Your task to perform on an android device: Search for pizza restaurants on Maps Image 0: 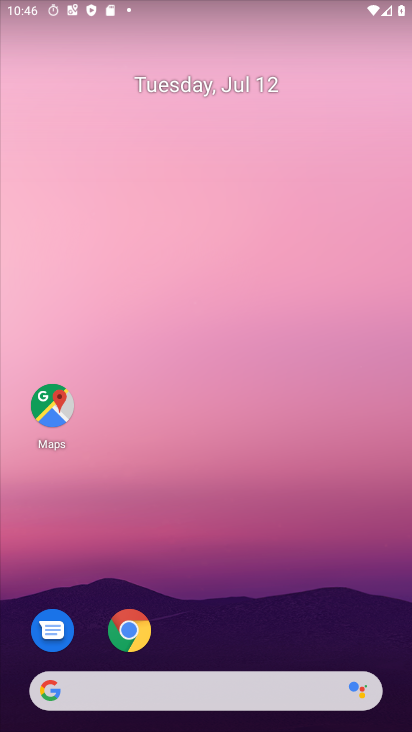
Step 0: click (51, 409)
Your task to perform on an android device: Search for pizza restaurants on Maps Image 1: 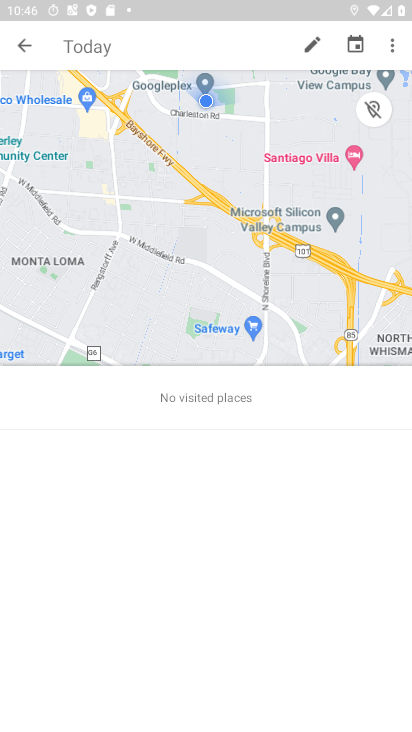
Step 1: press back button
Your task to perform on an android device: Search for pizza restaurants on Maps Image 2: 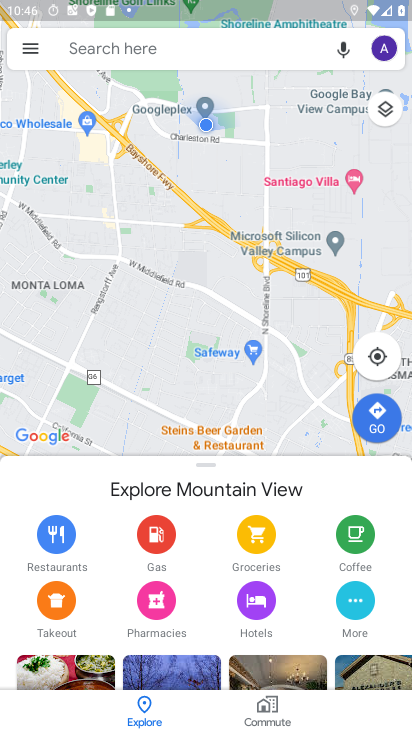
Step 2: click (204, 46)
Your task to perform on an android device: Search for pizza restaurants on Maps Image 3: 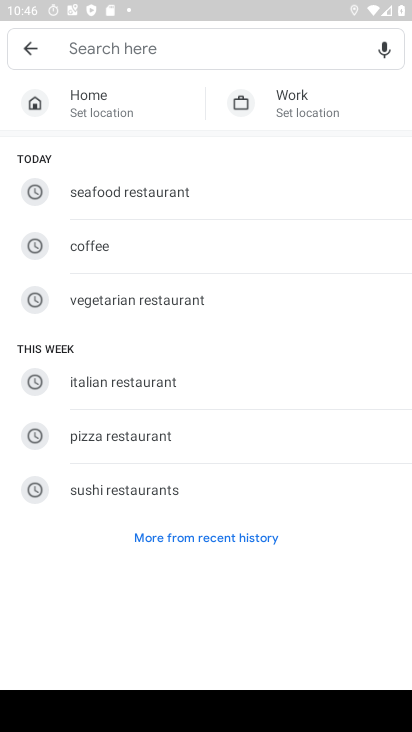
Step 3: click (129, 438)
Your task to perform on an android device: Search for pizza restaurants on Maps Image 4: 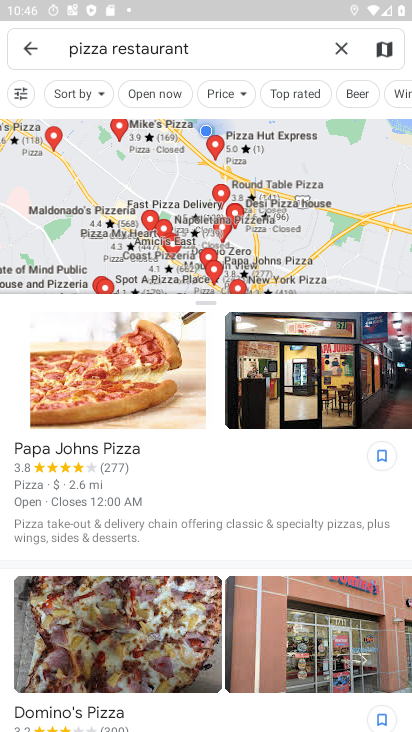
Step 4: task complete